Your task to perform on an android device: Open privacy settings Image 0: 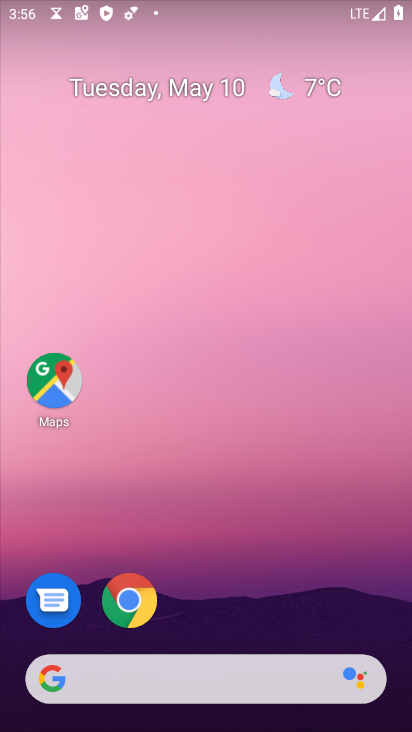
Step 0: drag from (217, 646) to (311, 67)
Your task to perform on an android device: Open privacy settings Image 1: 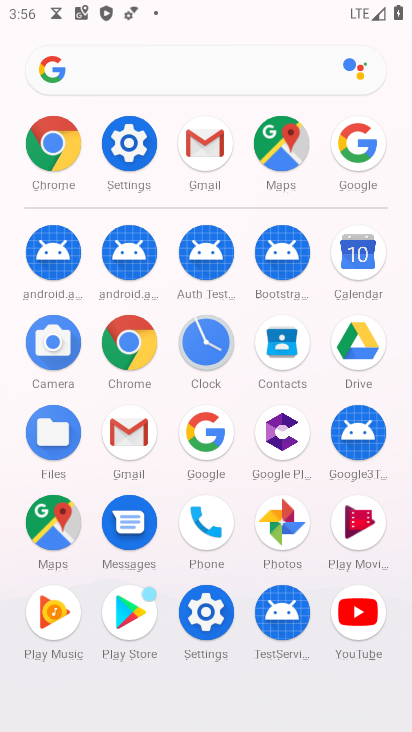
Step 1: click (186, 615)
Your task to perform on an android device: Open privacy settings Image 2: 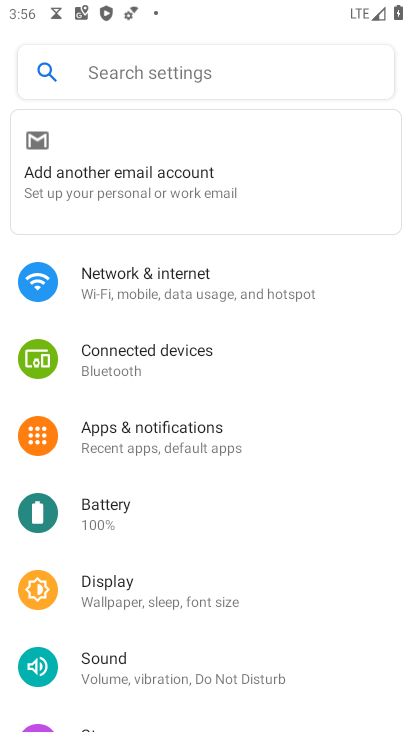
Step 2: drag from (184, 597) to (283, 92)
Your task to perform on an android device: Open privacy settings Image 3: 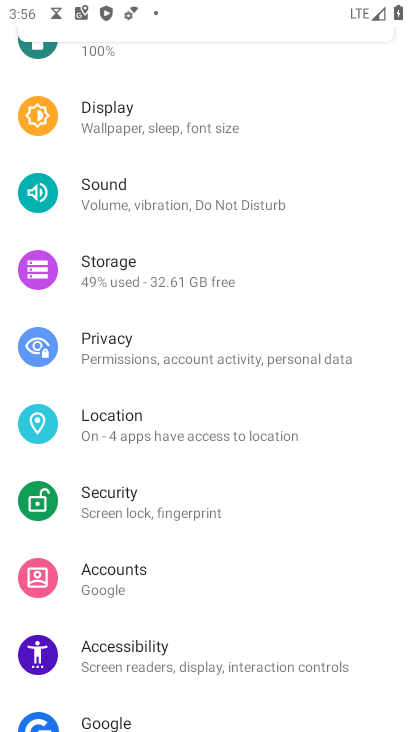
Step 3: drag from (158, 638) to (283, 49)
Your task to perform on an android device: Open privacy settings Image 4: 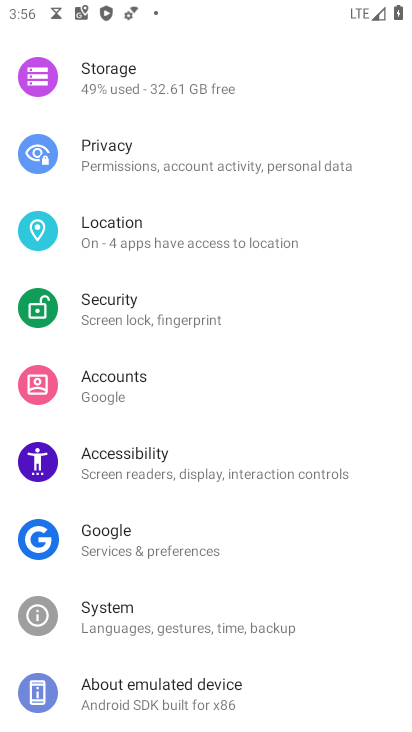
Step 4: click (211, 167)
Your task to perform on an android device: Open privacy settings Image 5: 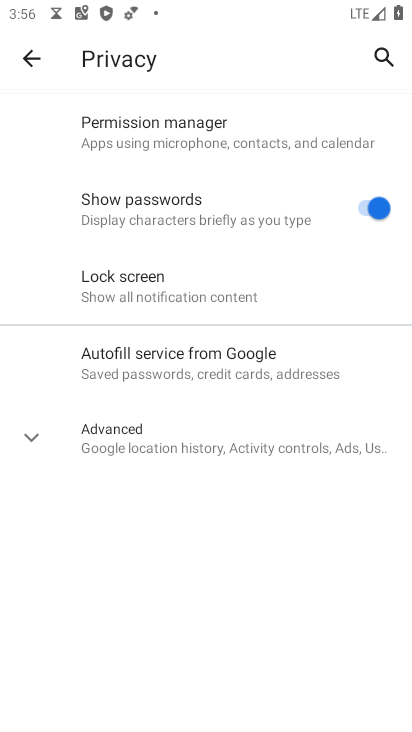
Step 5: task complete